Your task to perform on an android device: Open wifi settings Image 0: 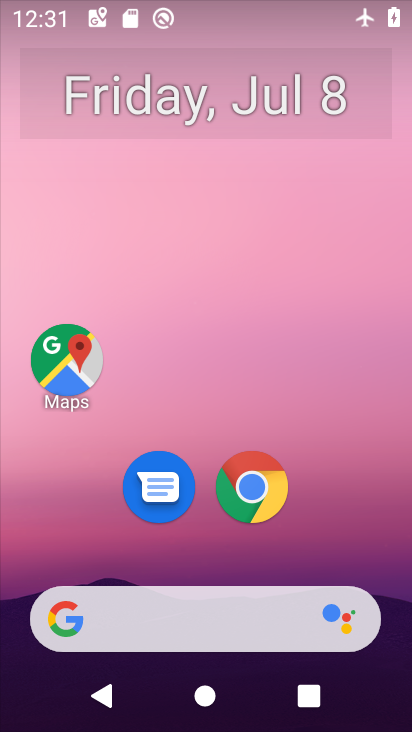
Step 0: drag from (380, 547) to (373, 163)
Your task to perform on an android device: Open wifi settings Image 1: 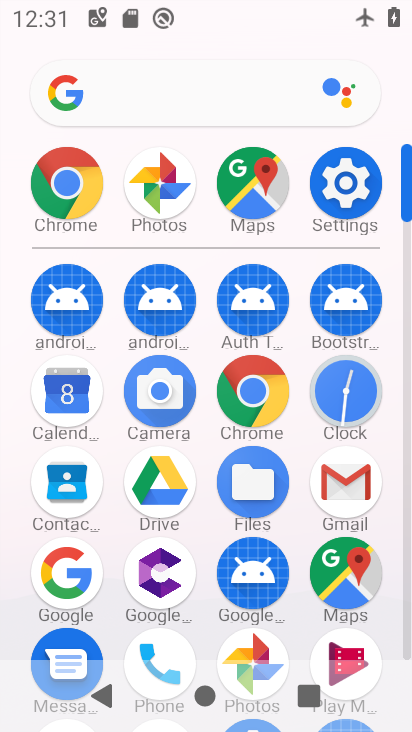
Step 1: click (358, 188)
Your task to perform on an android device: Open wifi settings Image 2: 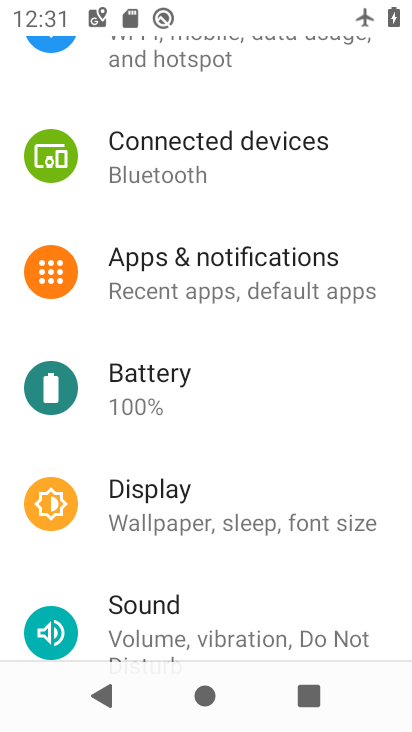
Step 2: drag from (374, 462) to (379, 312)
Your task to perform on an android device: Open wifi settings Image 3: 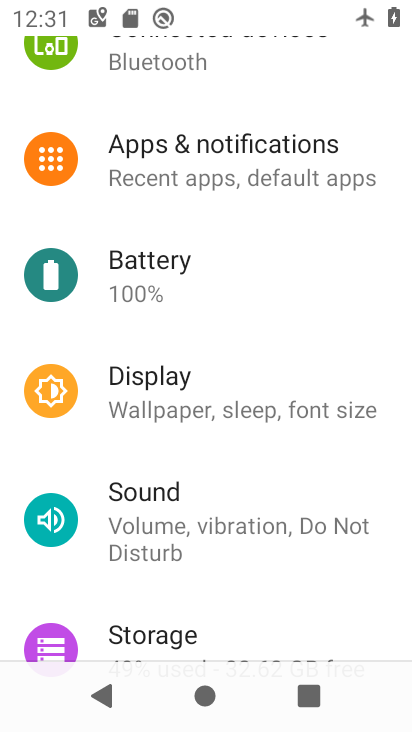
Step 3: drag from (380, 150) to (375, 305)
Your task to perform on an android device: Open wifi settings Image 4: 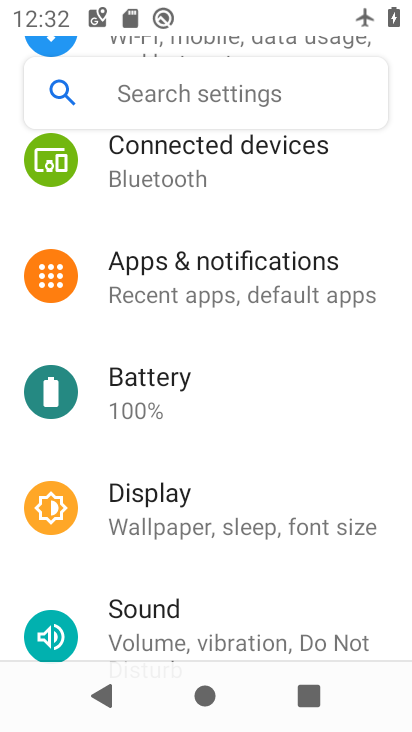
Step 4: drag from (342, 361) to (354, 546)
Your task to perform on an android device: Open wifi settings Image 5: 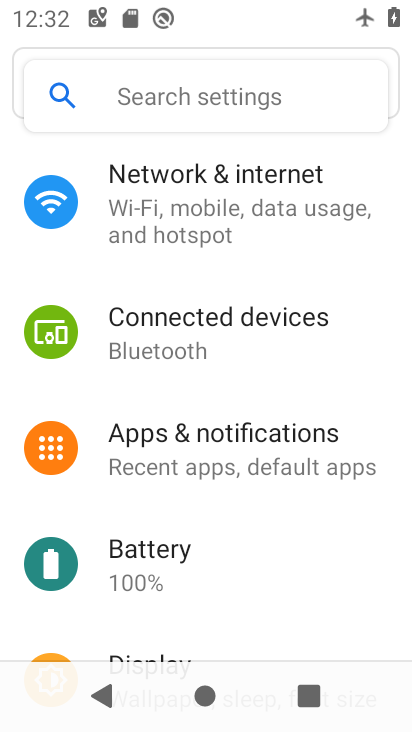
Step 5: drag from (367, 281) to (365, 457)
Your task to perform on an android device: Open wifi settings Image 6: 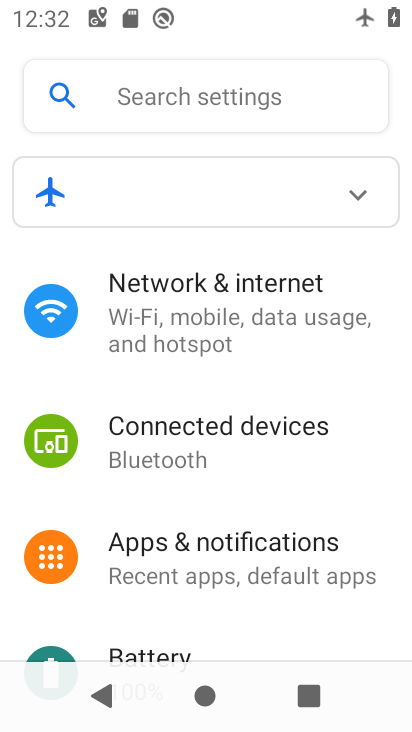
Step 6: click (288, 268)
Your task to perform on an android device: Open wifi settings Image 7: 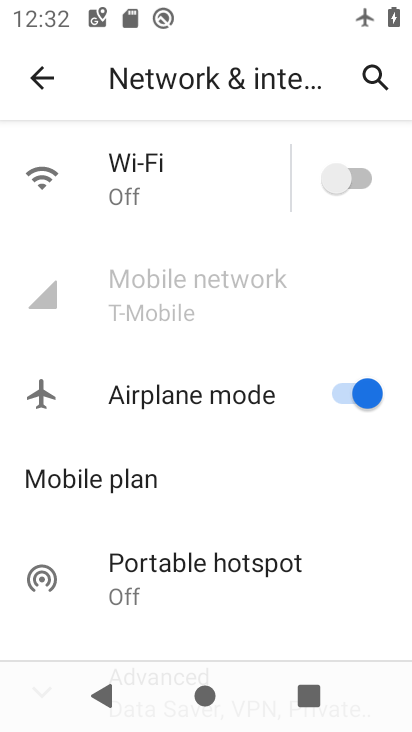
Step 7: drag from (312, 505) to (290, 349)
Your task to perform on an android device: Open wifi settings Image 8: 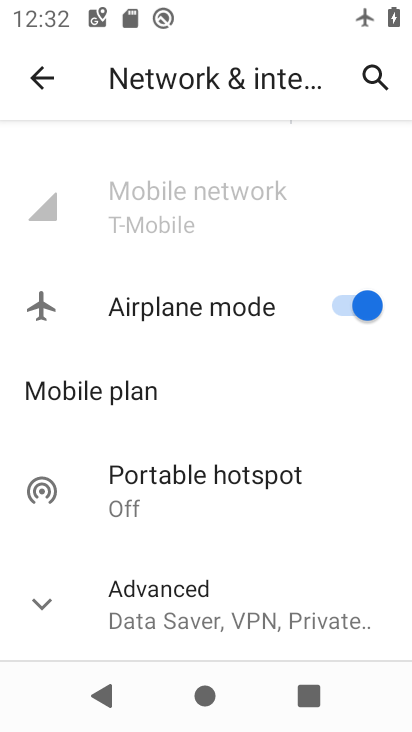
Step 8: drag from (244, 175) to (250, 397)
Your task to perform on an android device: Open wifi settings Image 9: 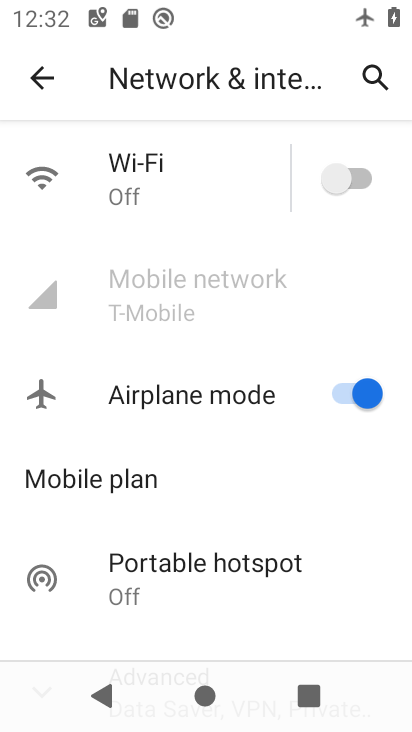
Step 9: click (173, 185)
Your task to perform on an android device: Open wifi settings Image 10: 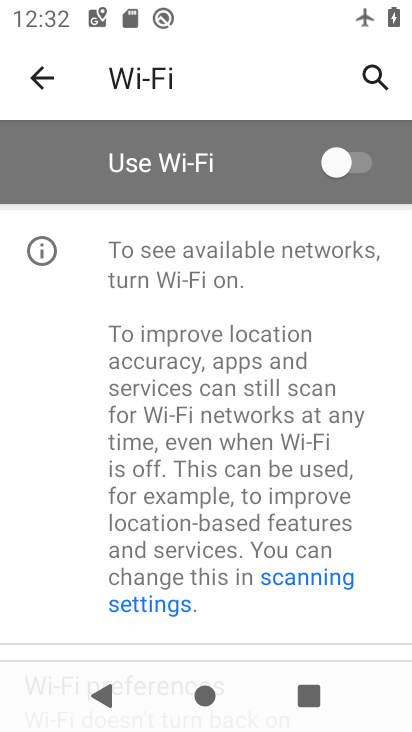
Step 10: task complete